Your task to perform on an android device: Go to notification settings Image 0: 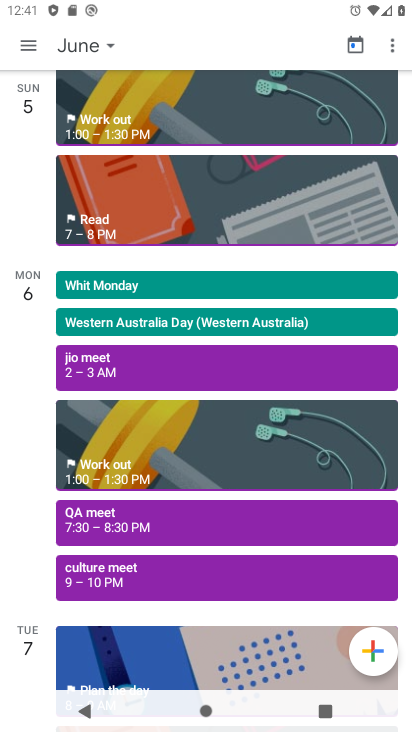
Step 0: press home button
Your task to perform on an android device: Go to notification settings Image 1: 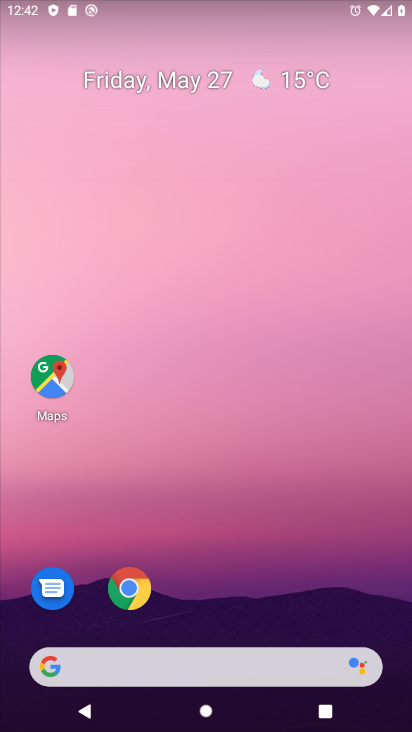
Step 1: drag from (388, 627) to (322, 79)
Your task to perform on an android device: Go to notification settings Image 2: 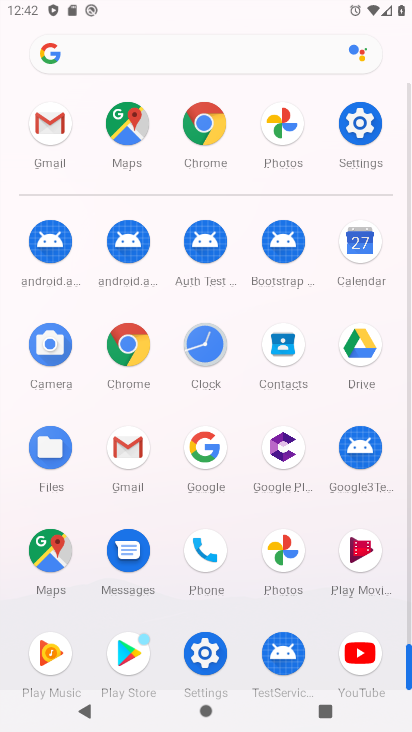
Step 2: click (206, 656)
Your task to perform on an android device: Go to notification settings Image 3: 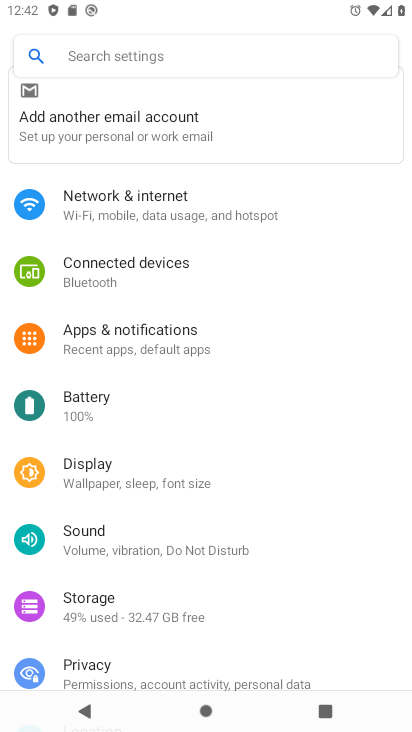
Step 3: click (139, 330)
Your task to perform on an android device: Go to notification settings Image 4: 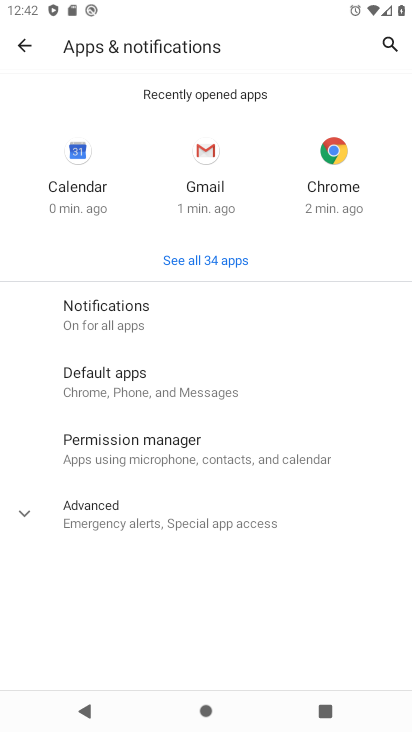
Step 4: click (104, 310)
Your task to perform on an android device: Go to notification settings Image 5: 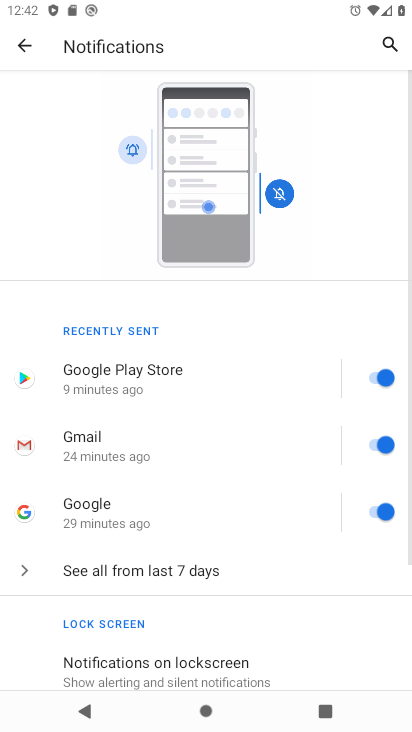
Step 5: drag from (251, 670) to (339, 214)
Your task to perform on an android device: Go to notification settings Image 6: 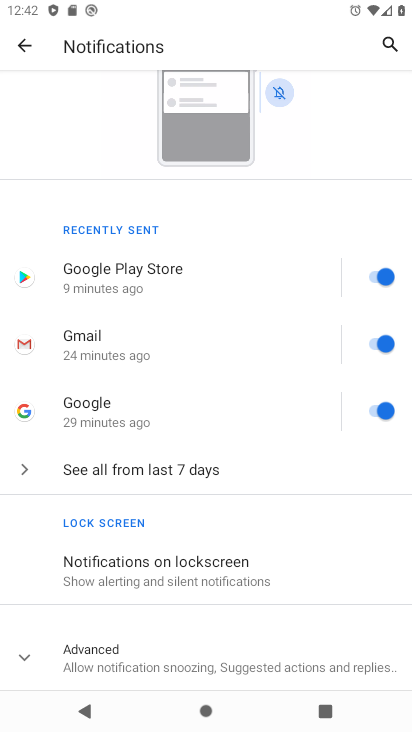
Step 6: click (29, 654)
Your task to perform on an android device: Go to notification settings Image 7: 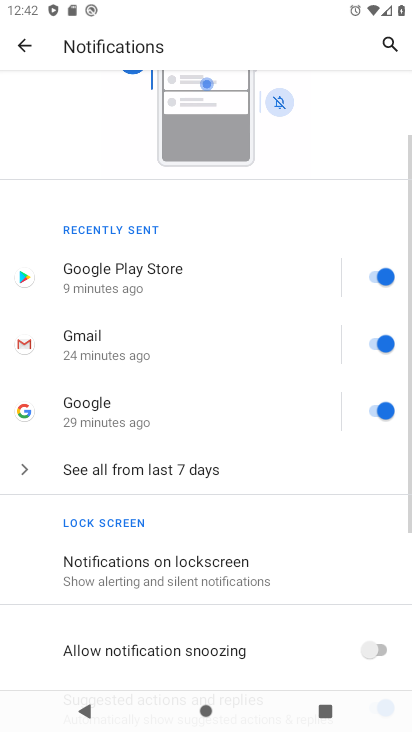
Step 7: task complete